Your task to perform on an android device: Open settings on Google Maps Image 0: 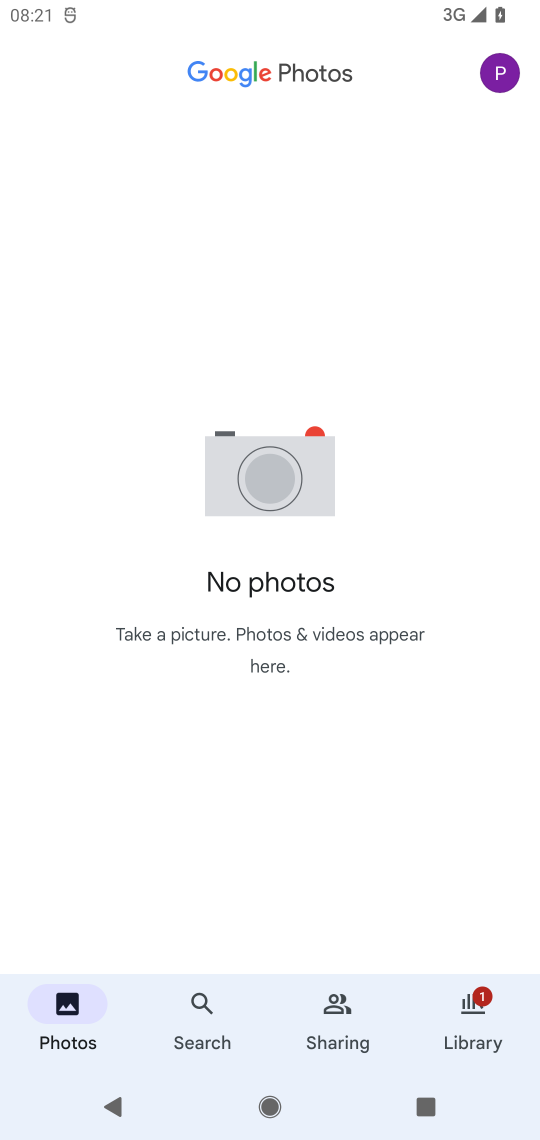
Step 0: press home button
Your task to perform on an android device: Open settings on Google Maps Image 1: 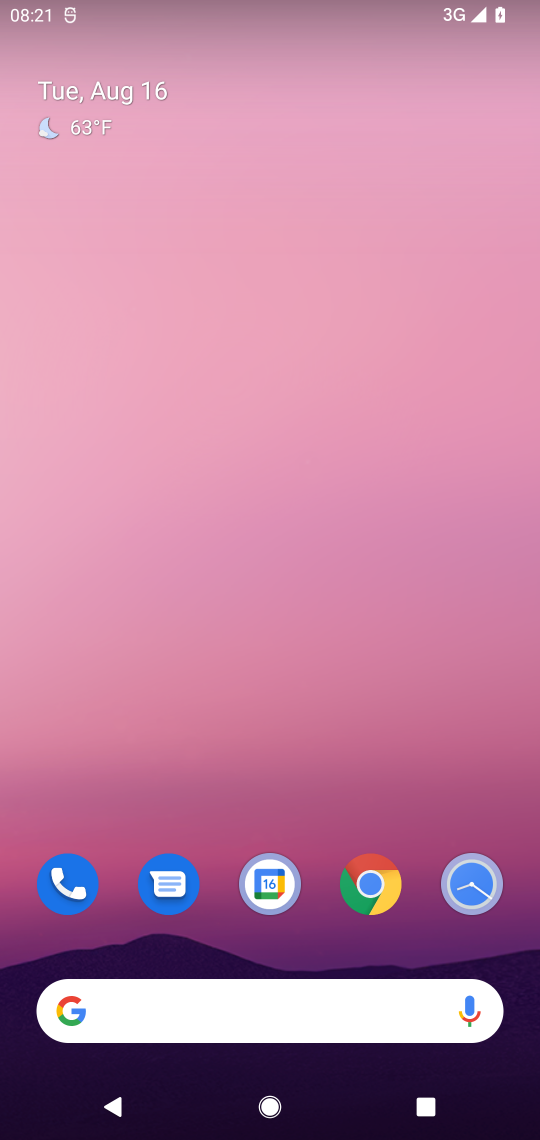
Step 1: drag from (167, 288) to (186, 163)
Your task to perform on an android device: Open settings on Google Maps Image 2: 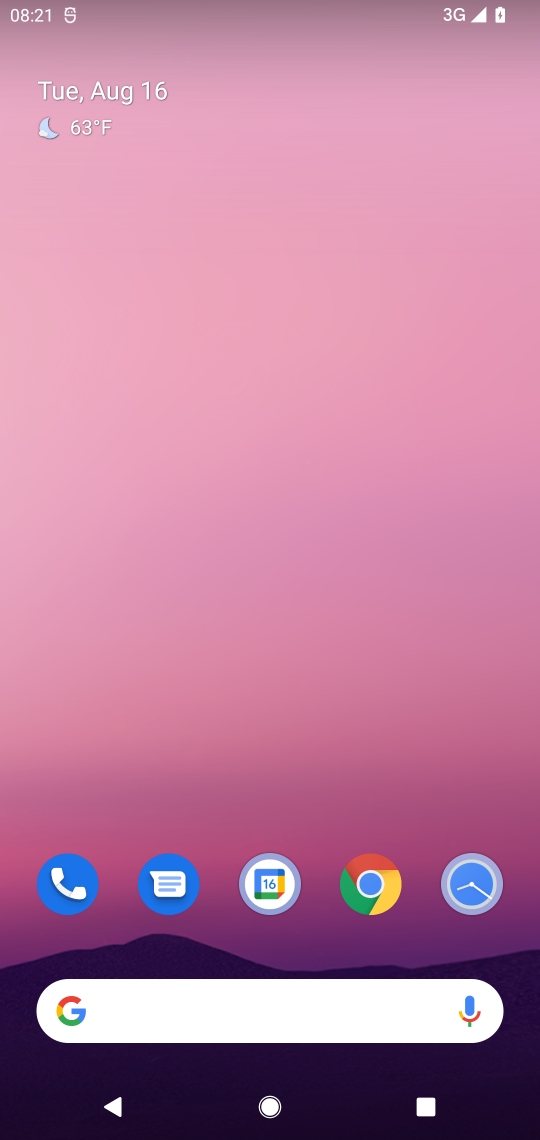
Step 2: drag from (305, 803) to (357, 131)
Your task to perform on an android device: Open settings on Google Maps Image 3: 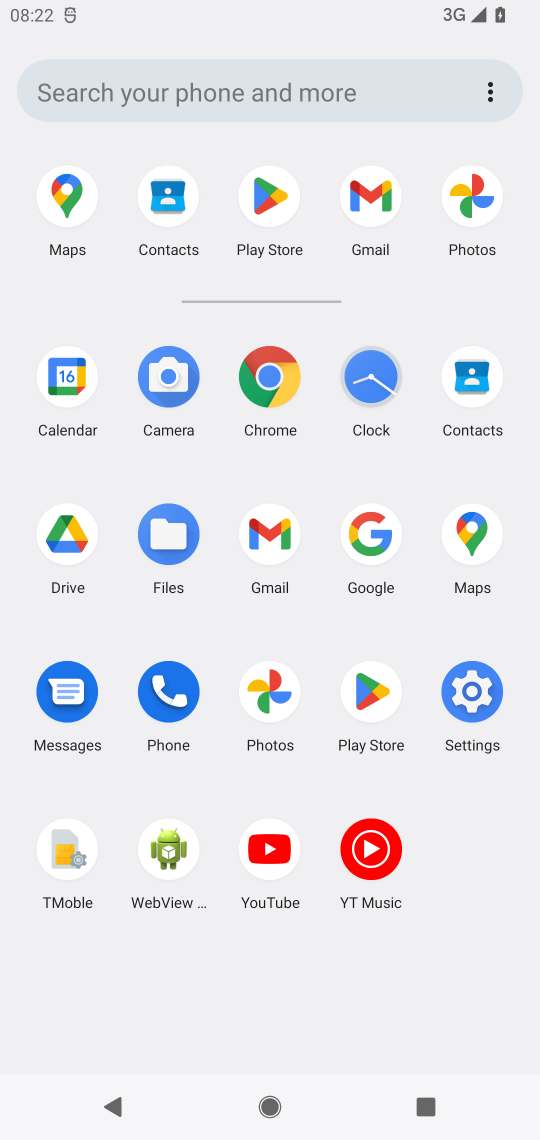
Step 3: click (469, 537)
Your task to perform on an android device: Open settings on Google Maps Image 4: 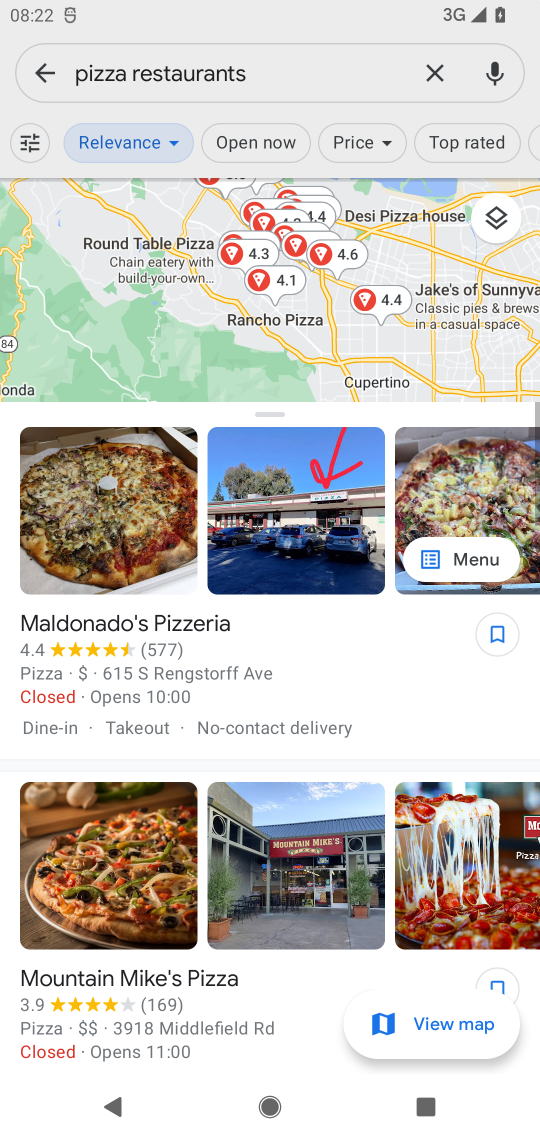
Step 4: click (45, 68)
Your task to perform on an android device: Open settings on Google Maps Image 5: 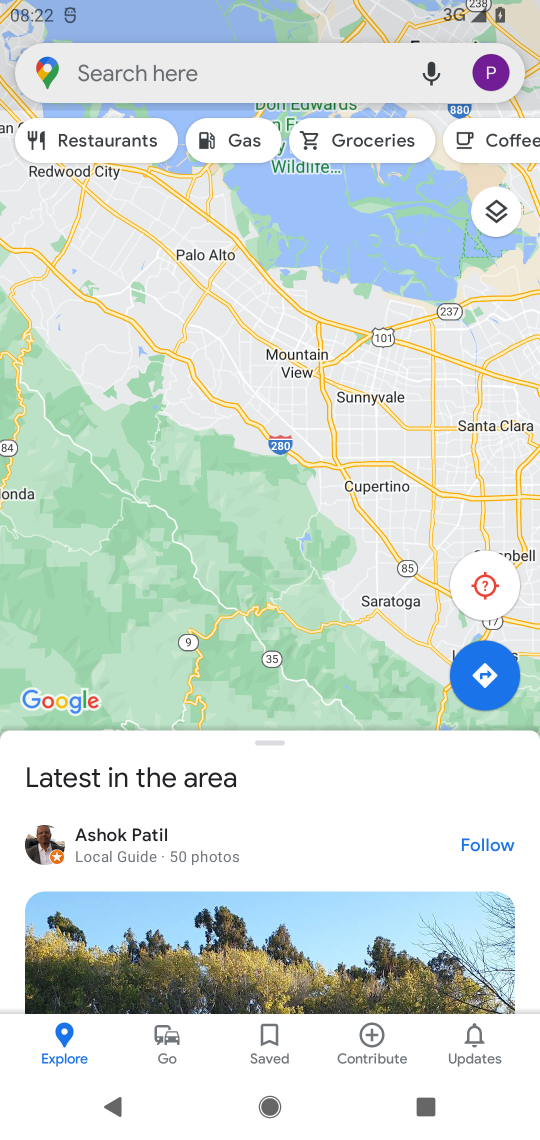
Step 5: click (489, 76)
Your task to perform on an android device: Open settings on Google Maps Image 6: 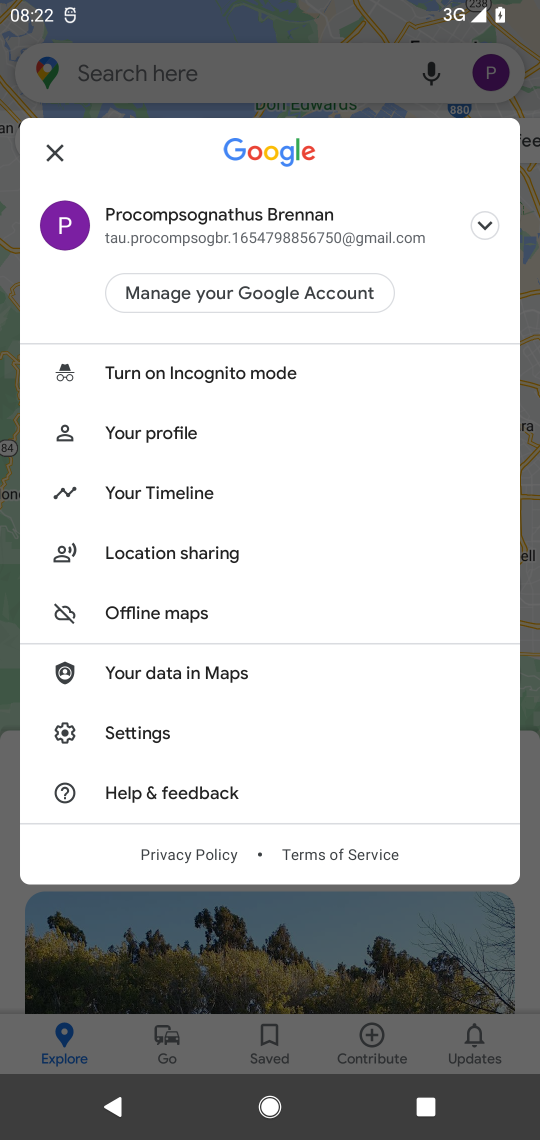
Step 6: click (121, 730)
Your task to perform on an android device: Open settings on Google Maps Image 7: 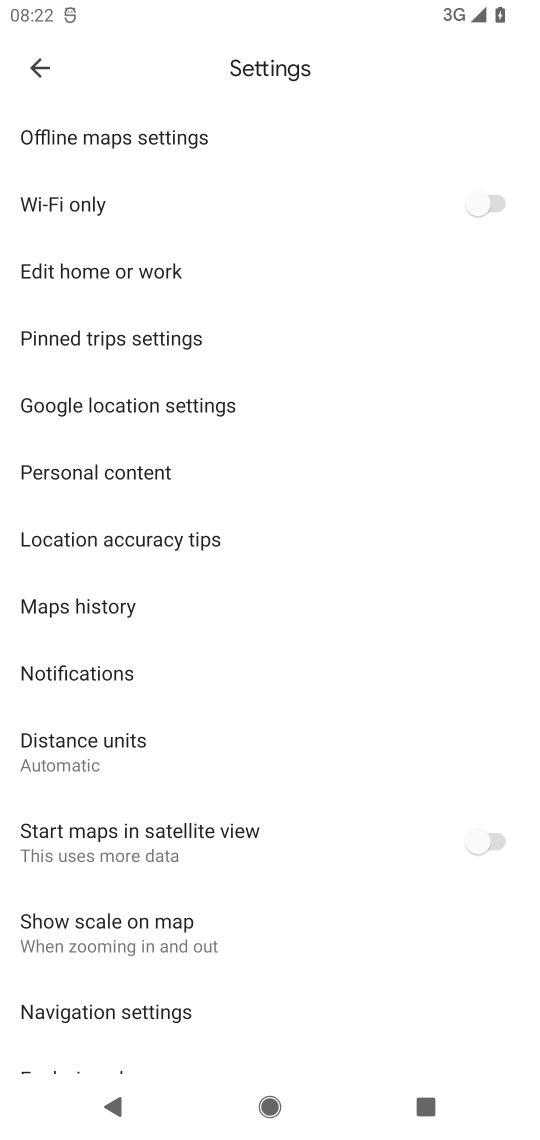
Step 7: task complete